Your task to perform on an android device: check android version Image 0: 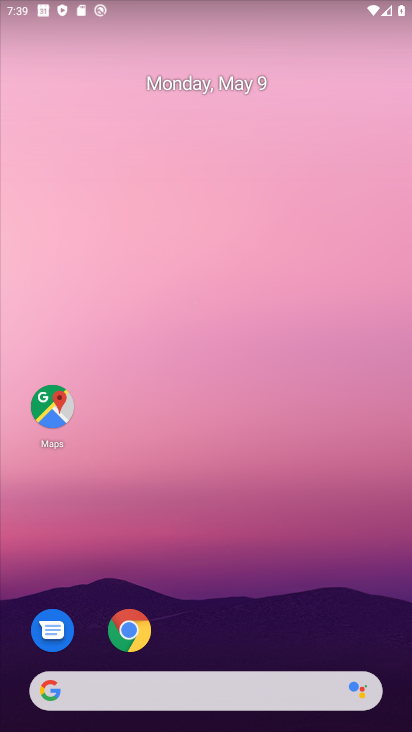
Step 0: press home button
Your task to perform on an android device: check android version Image 1: 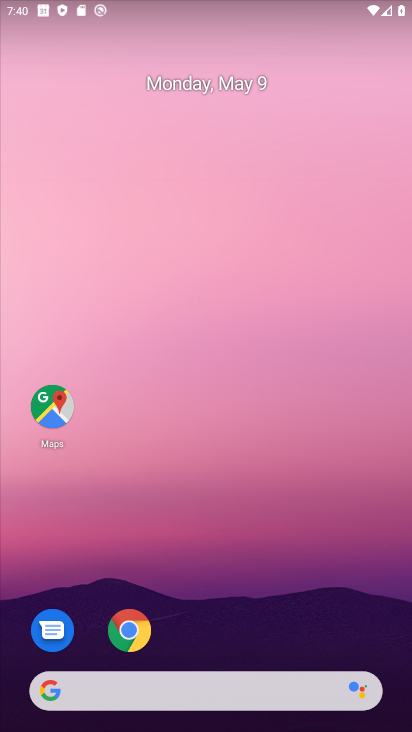
Step 1: drag from (306, 566) to (301, 130)
Your task to perform on an android device: check android version Image 2: 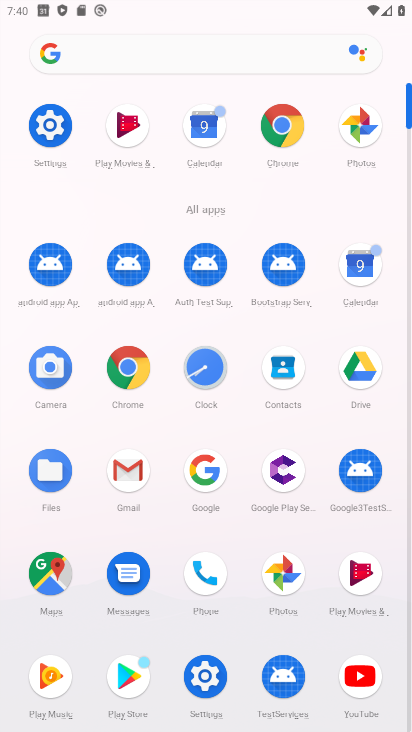
Step 2: click (202, 684)
Your task to perform on an android device: check android version Image 3: 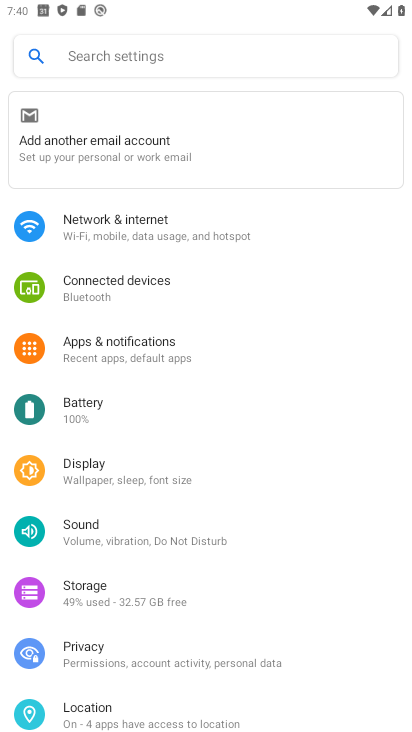
Step 3: drag from (310, 659) to (297, 303)
Your task to perform on an android device: check android version Image 4: 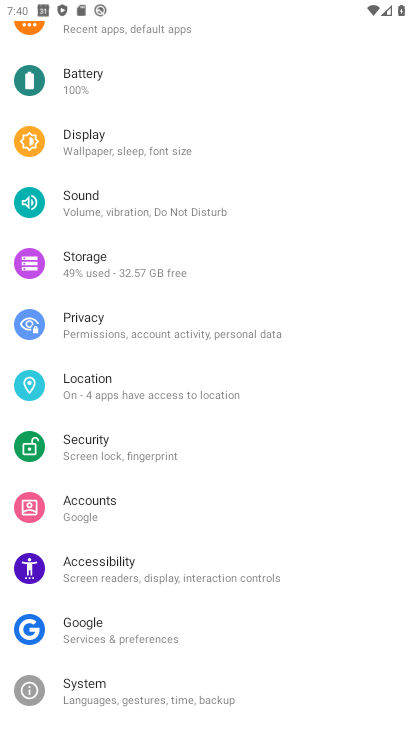
Step 4: drag from (240, 668) to (236, 171)
Your task to perform on an android device: check android version Image 5: 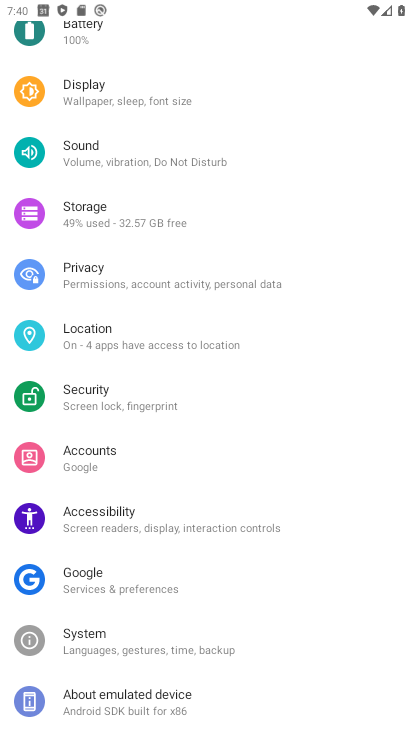
Step 5: click (95, 700)
Your task to perform on an android device: check android version Image 6: 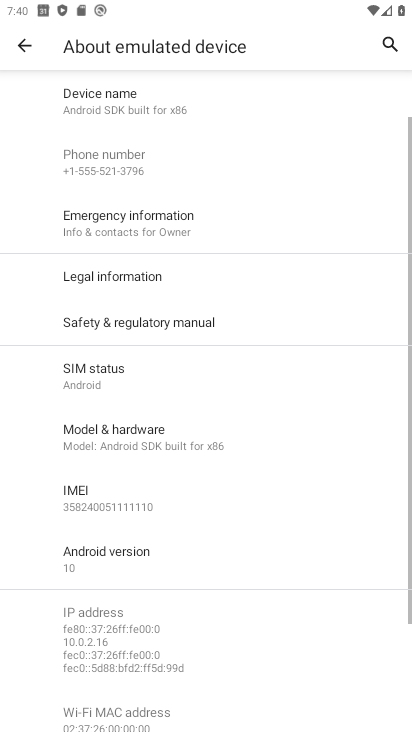
Step 6: drag from (272, 578) to (305, 343)
Your task to perform on an android device: check android version Image 7: 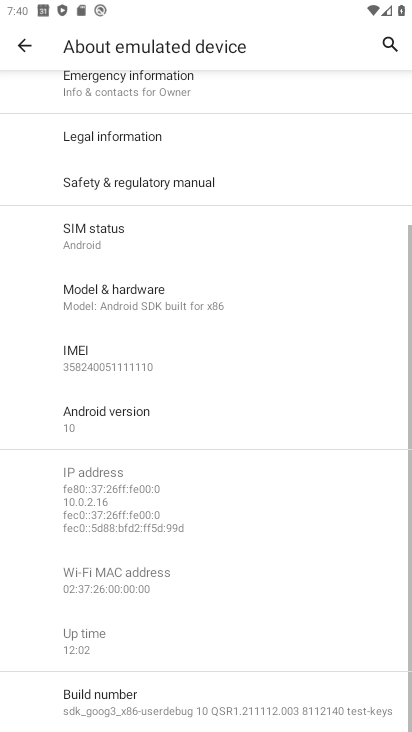
Step 7: click (135, 414)
Your task to perform on an android device: check android version Image 8: 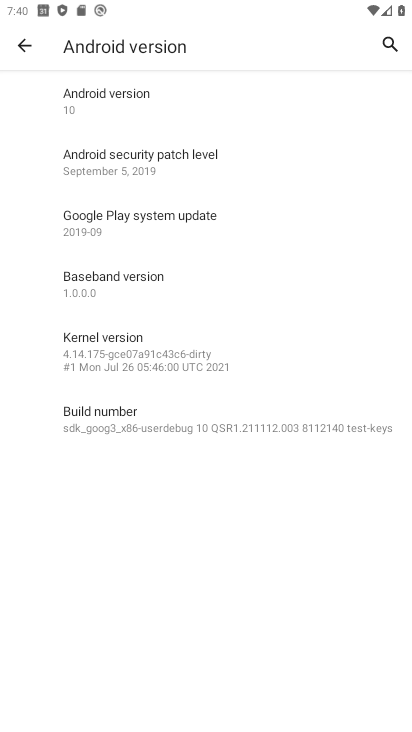
Step 8: task complete